Your task to perform on an android device: delete browsing data in the chrome app Image 0: 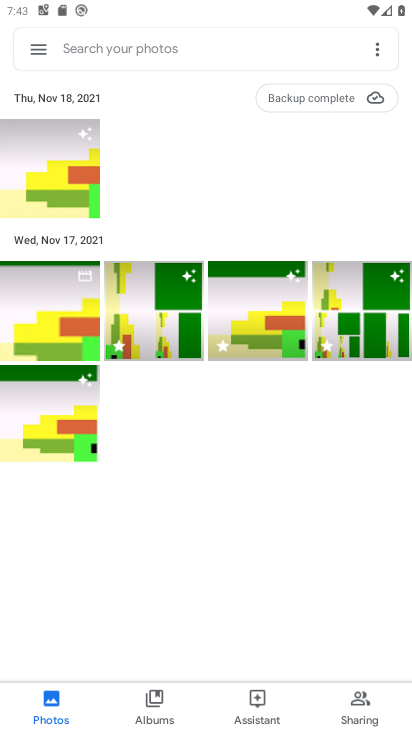
Step 0: press home button
Your task to perform on an android device: delete browsing data in the chrome app Image 1: 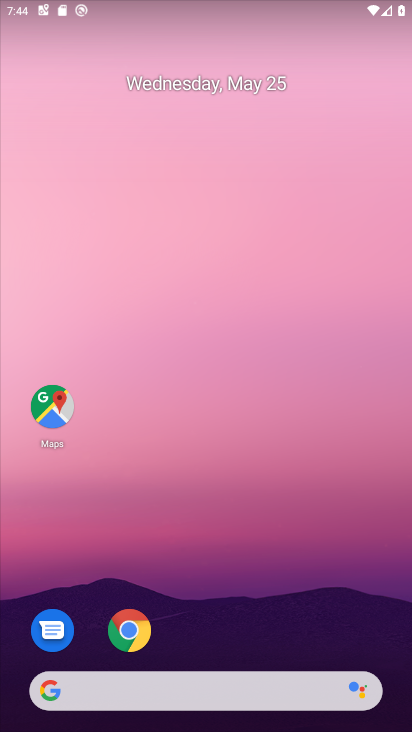
Step 1: click (131, 627)
Your task to perform on an android device: delete browsing data in the chrome app Image 2: 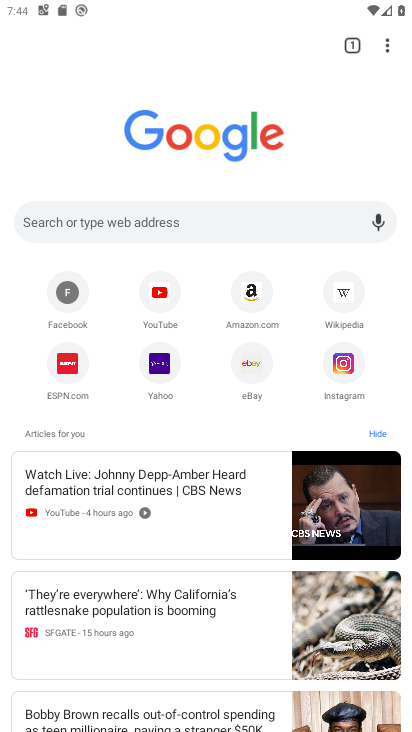
Step 2: click (379, 45)
Your task to perform on an android device: delete browsing data in the chrome app Image 3: 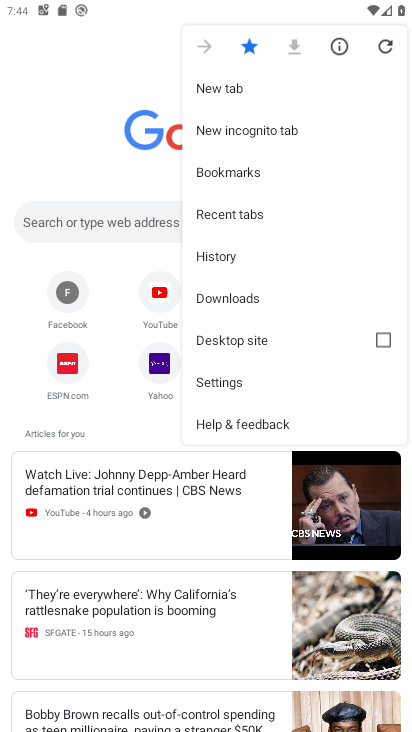
Step 3: click (236, 382)
Your task to perform on an android device: delete browsing data in the chrome app Image 4: 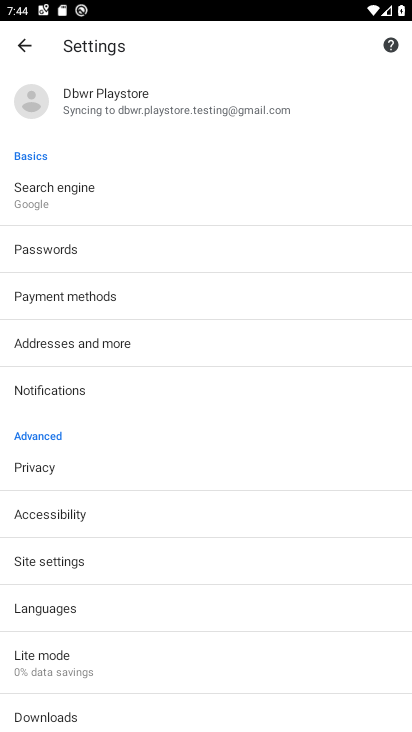
Step 4: click (79, 471)
Your task to perform on an android device: delete browsing data in the chrome app Image 5: 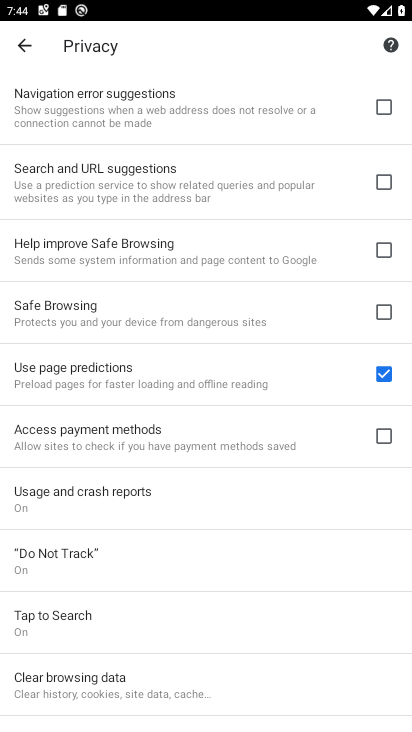
Step 5: drag from (192, 617) to (190, 410)
Your task to perform on an android device: delete browsing data in the chrome app Image 6: 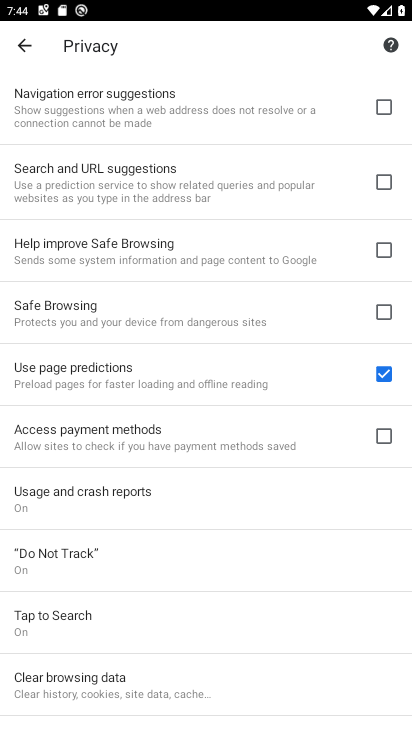
Step 6: click (113, 689)
Your task to perform on an android device: delete browsing data in the chrome app Image 7: 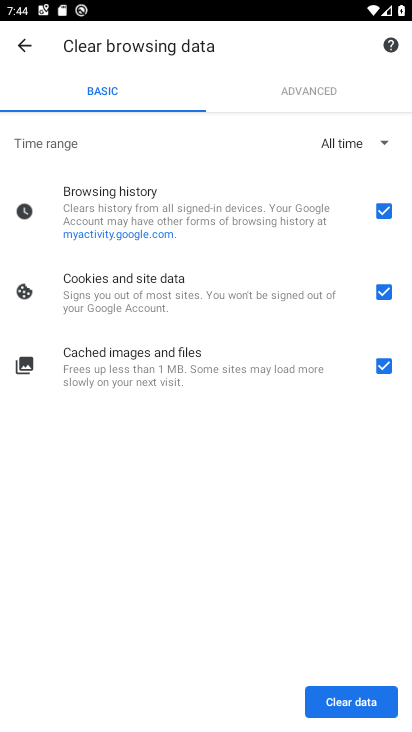
Step 7: click (382, 294)
Your task to perform on an android device: delete browsing data in the chrome app Image 8: 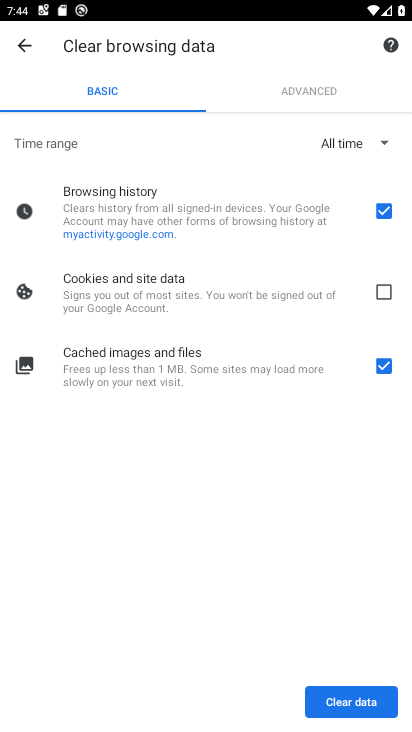
Step 8: click (384, 361)
Your task to perform on an android device: delete browsing data in the chrome app Image 9: 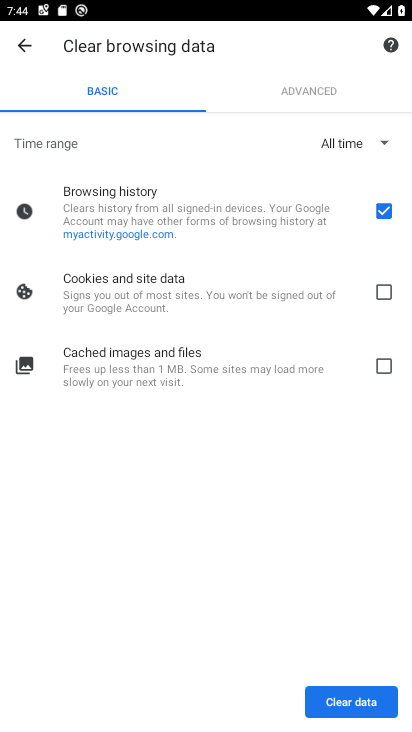
Step 9: task complete